Your task to perform on an android device: toggle notifications settings in the gmail app Image 0: 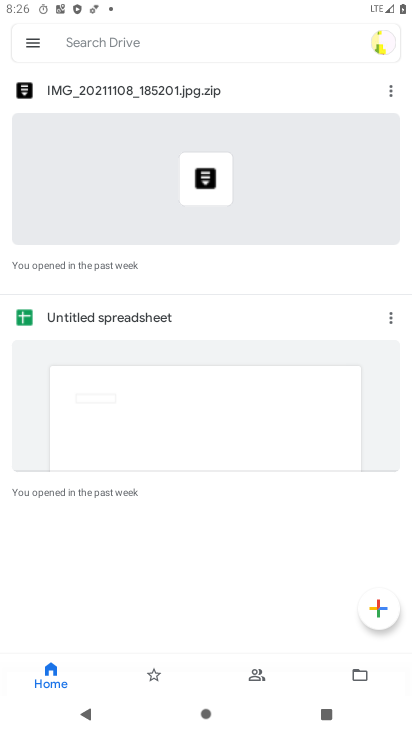
Step 0: press home button
Your task to perform on an android device: toggle notifications settings in the gmail app Image 1: 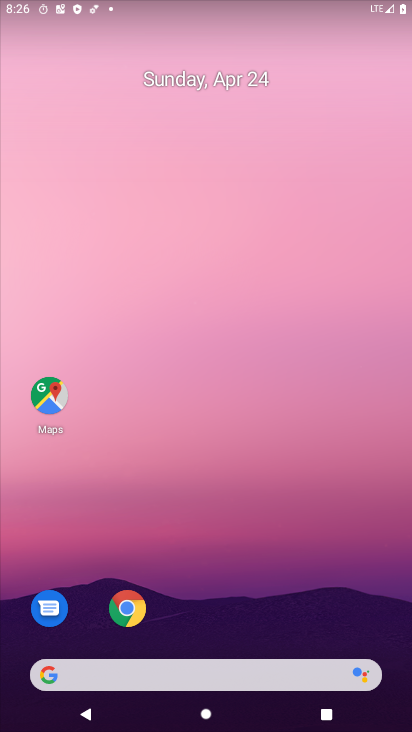
Step 1: drag from (259, 515) to (269, 66)
Your task to perform on an android device: toggle notifications settings in the gmail app Image 2: 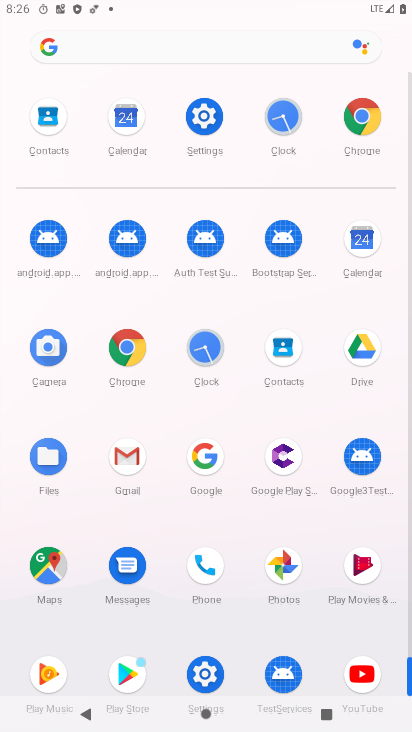
Step 2: click (137, 462)
Your task to perform on an android device: toggle notifications settings in the gmail app Image 3: 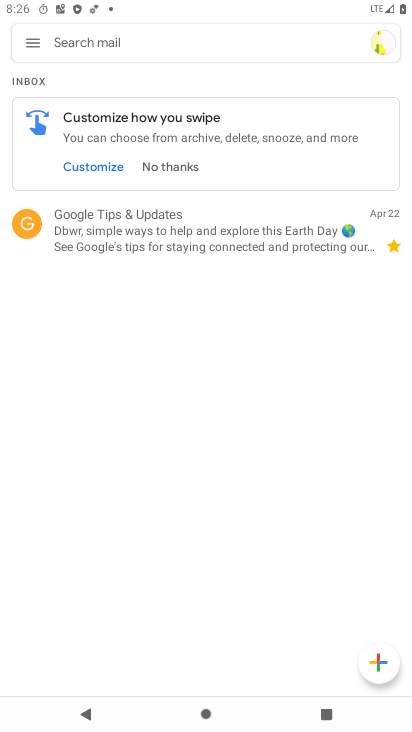
Step 3: click (35, 40)
Your task to perform on an android device: toggle notifications settings in the gmail app Image 4: 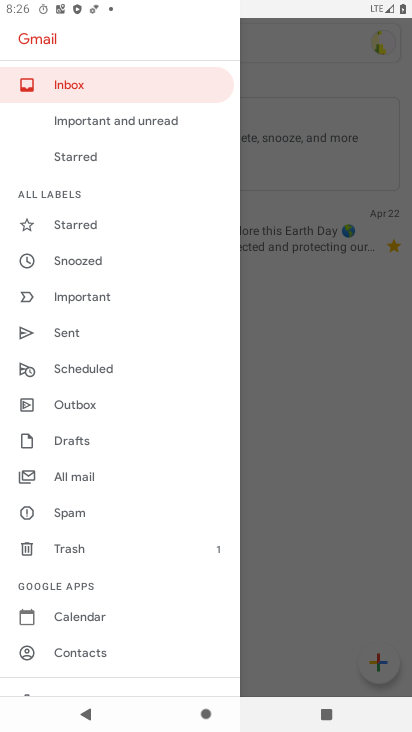
Step 4: drag from (107, 543) to (116, 371)
Your task to perform on an android device: toggle notifications settings in the gmail app Image 5: 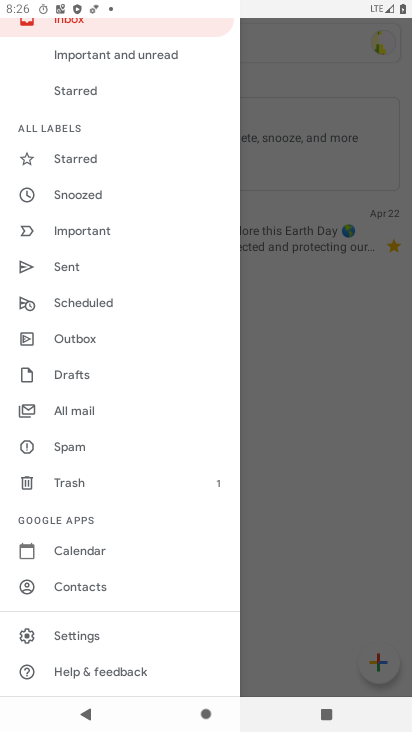
Step 5: click (103, 635)
Your task to perform on an android device: toggle notifications settings in the gmail app Image 6: 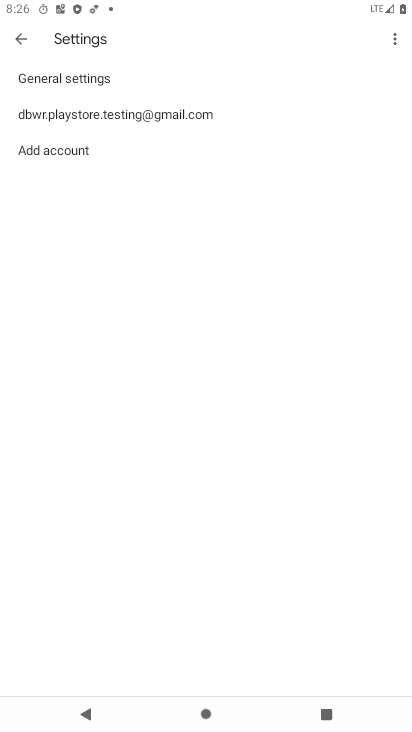
Step 6: click (120, 109)
Your task to perform on an android device: toggle notifications settings in the gmail app Image 7: 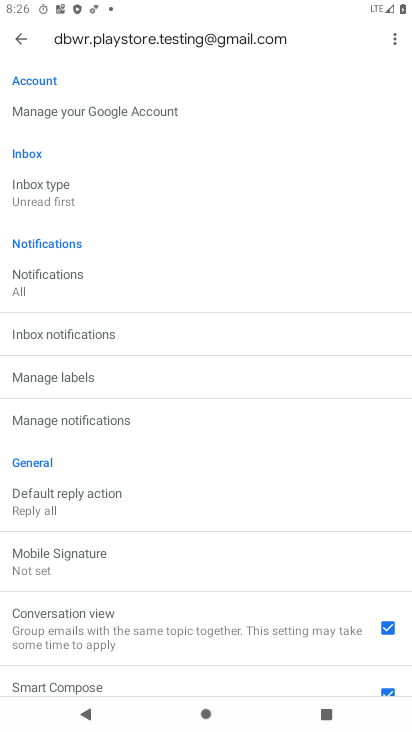
Step 7: click (115, 415)
Your task to perform on an android device: toggle notifications settings in the gmail app Image 8: 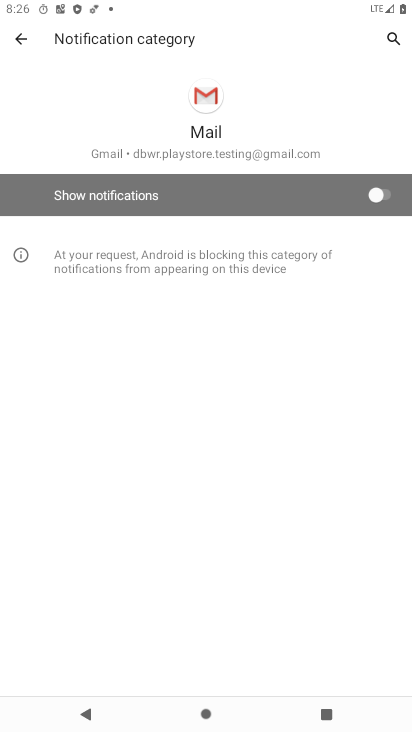
Step 8: click (382, 191)
Your task to perform on an android device: toggle notifications settings in the gmail app Image 9: 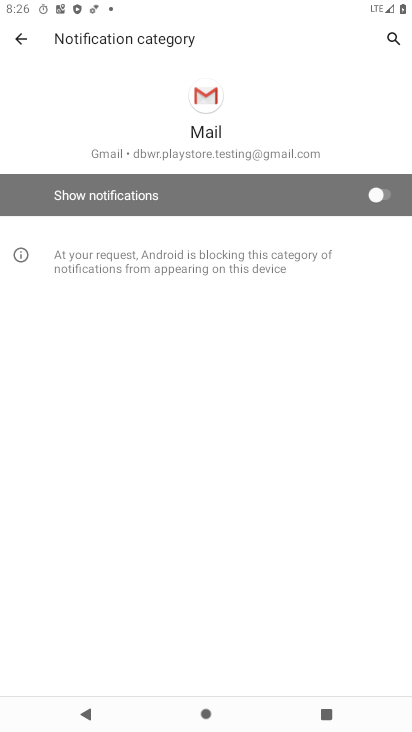
Step 9: click (382, 191)
Your task to perform on an android device: toggle notifications settings in the gmail app Image 10: 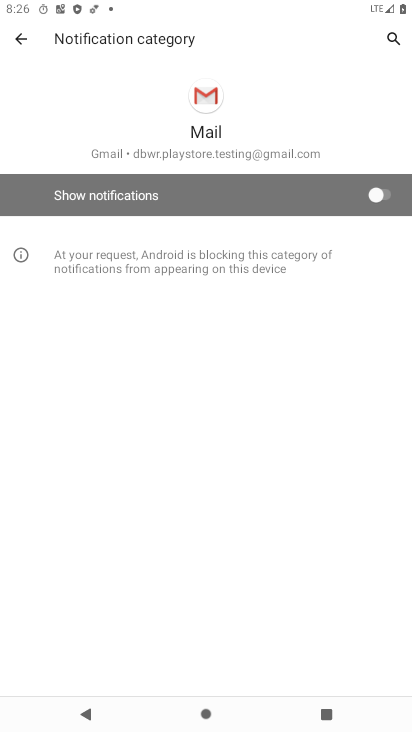
Step 10: click (21, 38)
Your task to perform on an android device: toggle notifications settings in the gmail app Image 11: 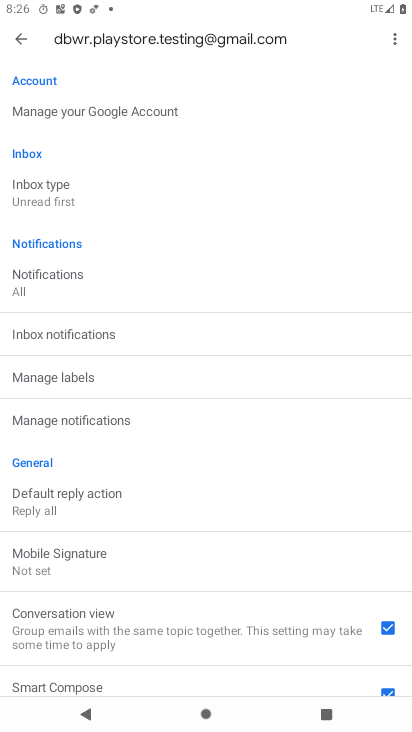
Step 11: click (17, 36)
Your task to perform on an android device: toggle notifications settings in the gmail app Image 12: 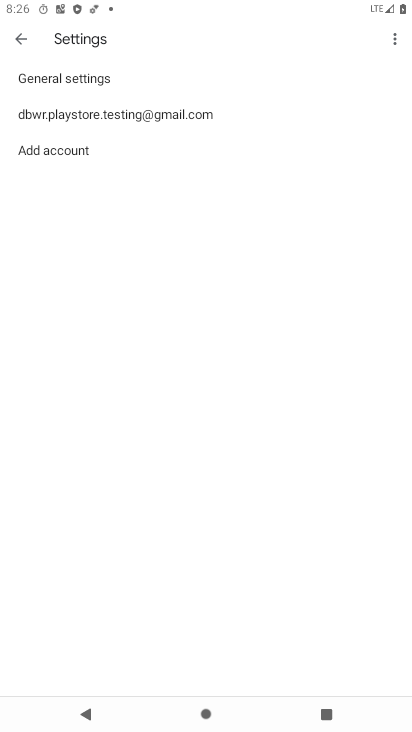
Step 12: click (43, 84)
Your task to perform on an android device: toggle notifications settings in the gmail app Image 13: 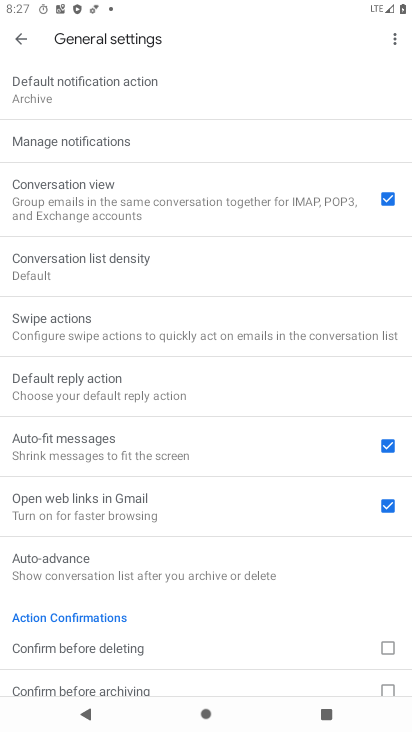
Step 13: click (88, 131)
Your task to perform on an android device: toggle notifications settings in the gmail app Image 14: 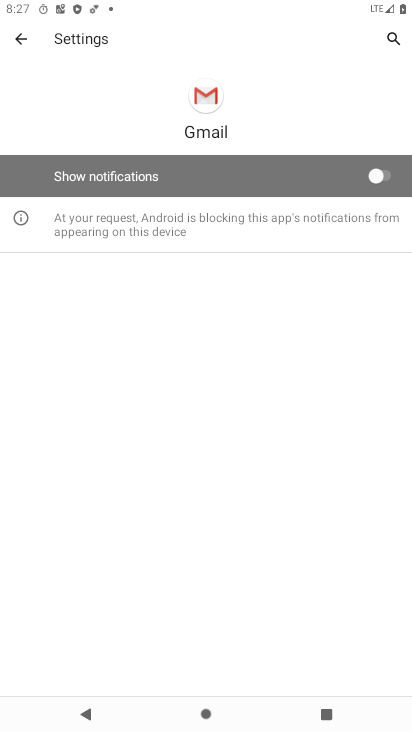
Step 14: click (379, 176)
Your task to perform on an android device: toggle notifications settings in the gmail app Image 15: 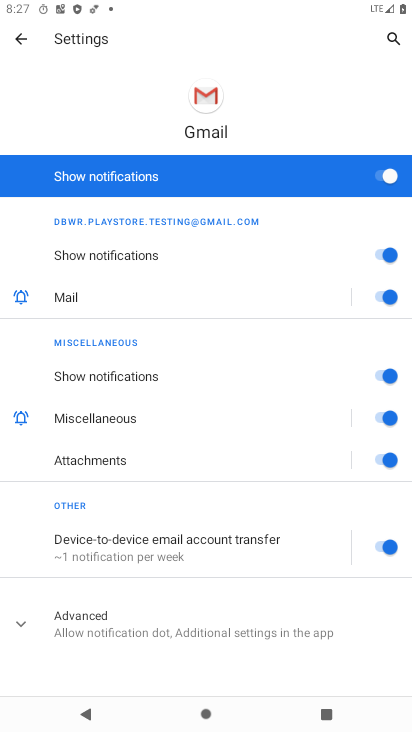
Step 15: task complete